Your task to perform on an android device: install app "HBO Max: Stream TV & Movies" Image 0: 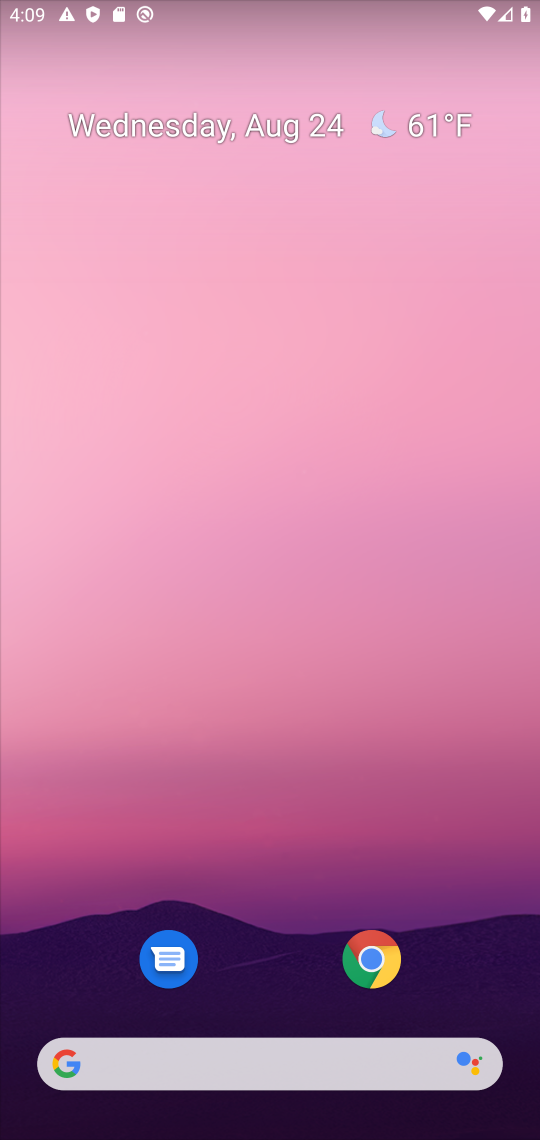
Step 0: drag from (301, 1027) to (329, 7)
Your task to perform on an android device: install app "HBO Max: Stream TV & Movies" Image 1: 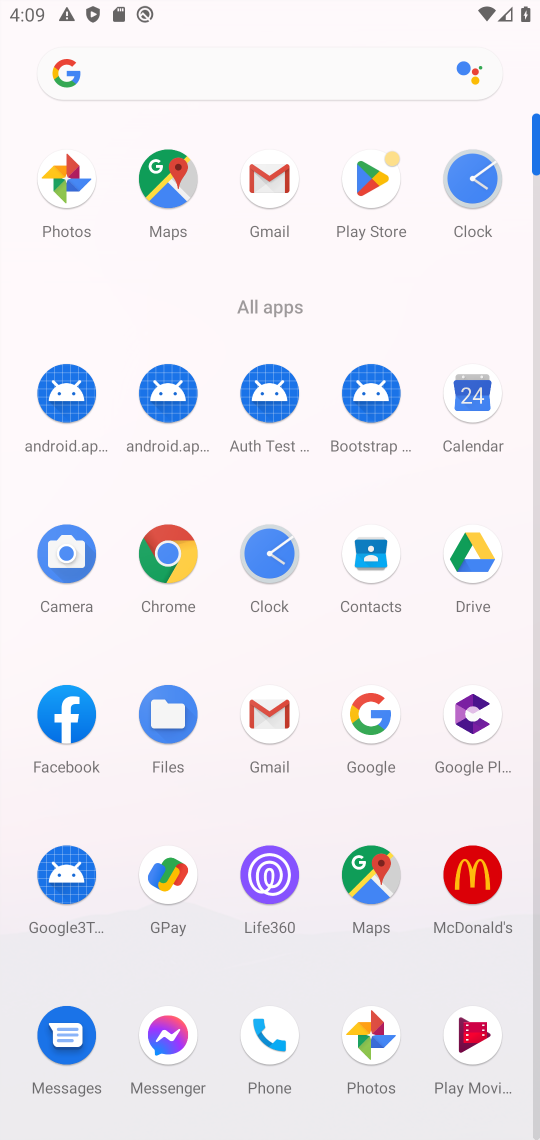
Step 1: click (365, 201)
Your task to perform on an android device: install app "HBO Max: Stream TV & Movies" Image 2: 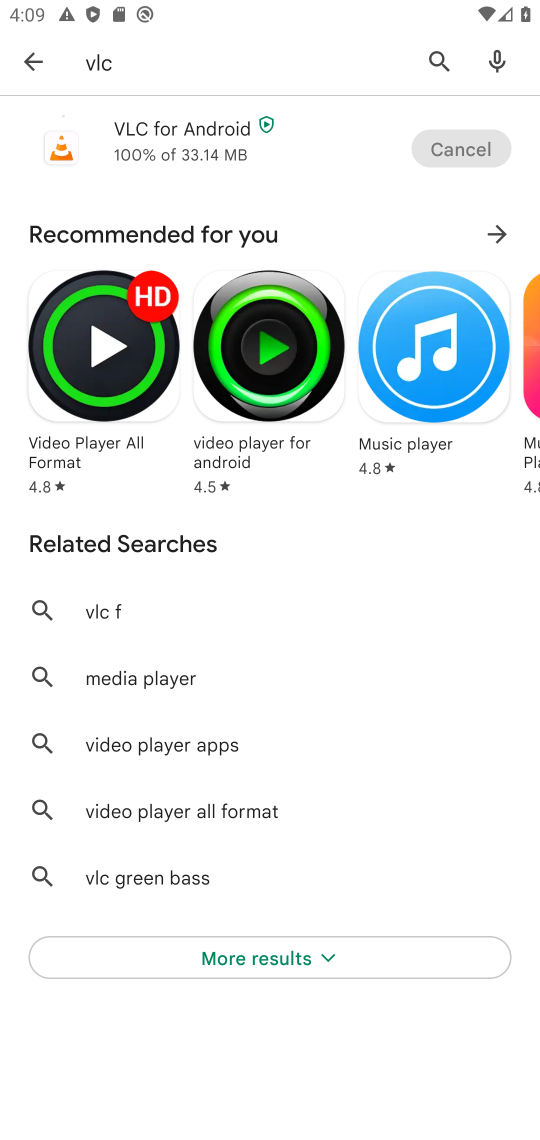
Step 2: click (442, 68)
Your task to perform on an android device: install app "HBO Max: Stream TV & Movies" Image 3: 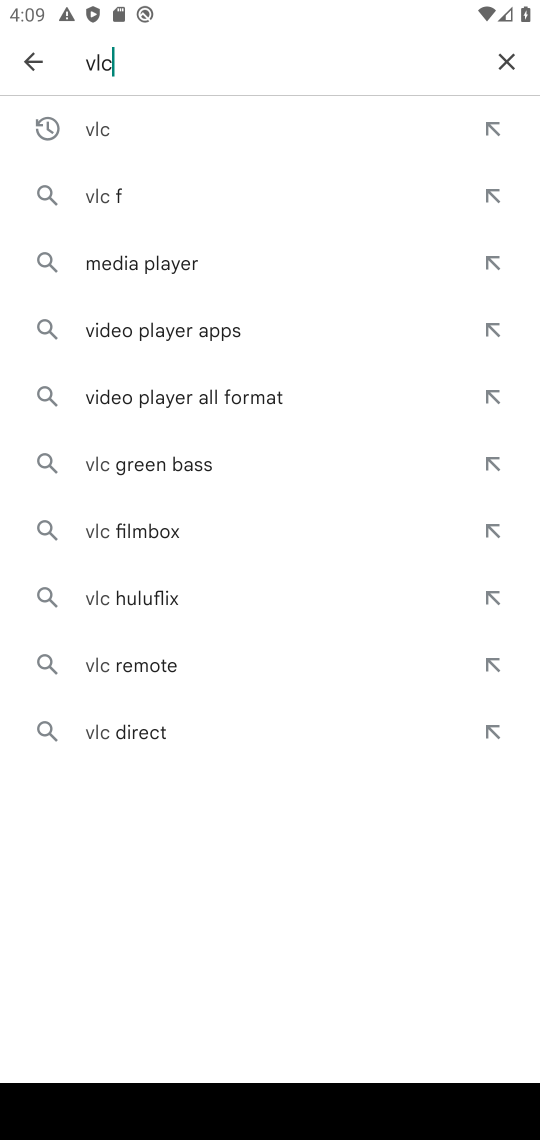
Step 3: click (501, 76)
Your task to perform on an android device: install app "HBO Max: Stream TV & Movies" Image 4: 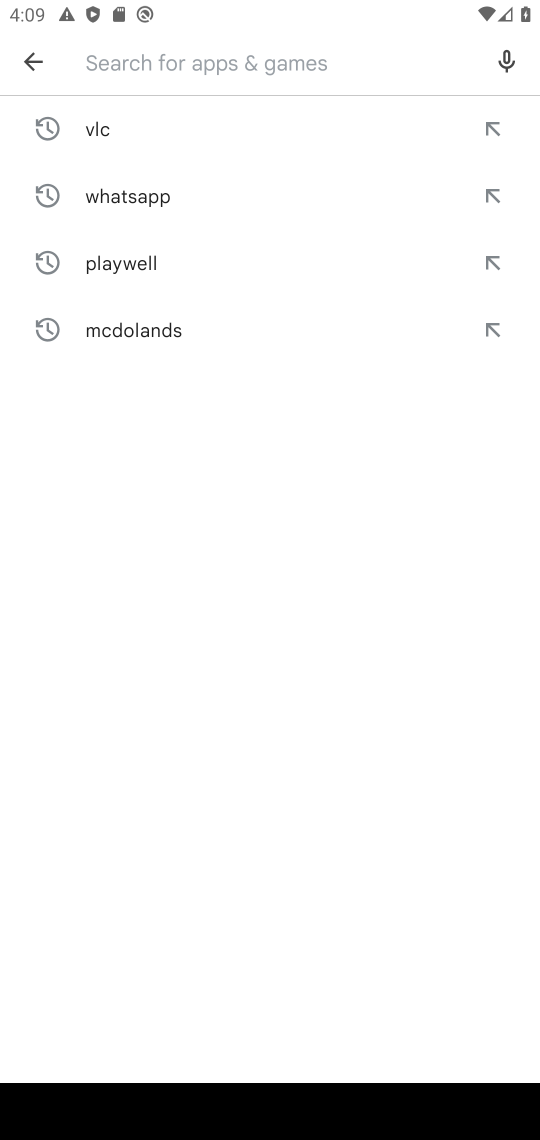
Step 4: type "hbo"
Your task to perform on an android device: install app "HBO Max: Stream TV & Movies" Image 5: 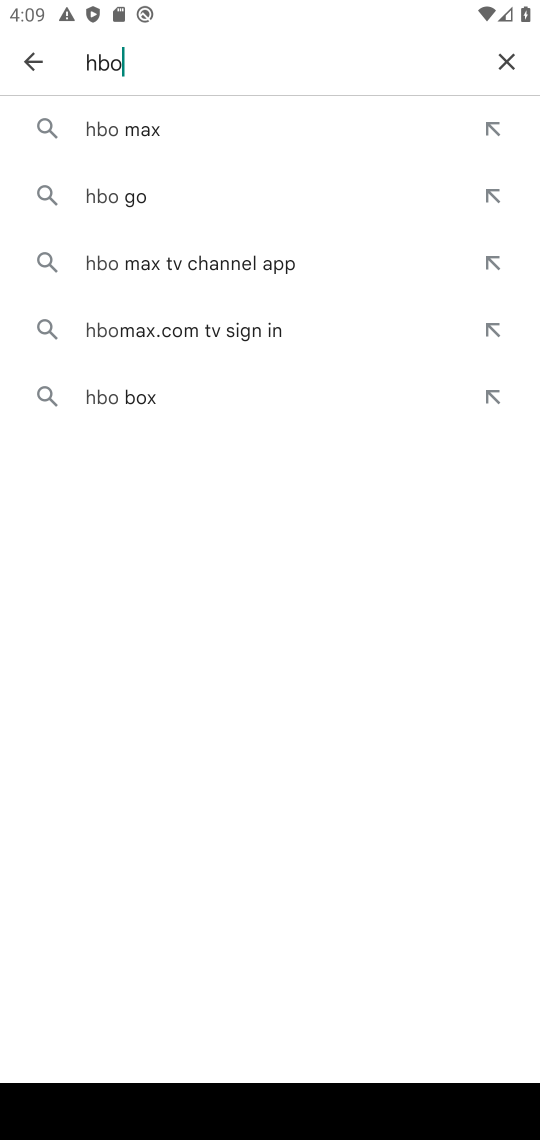
Step 5: click (267, 151)
Your task to perform on an android device: install app "HBO Max: Stream TV & Movies" Image 6: 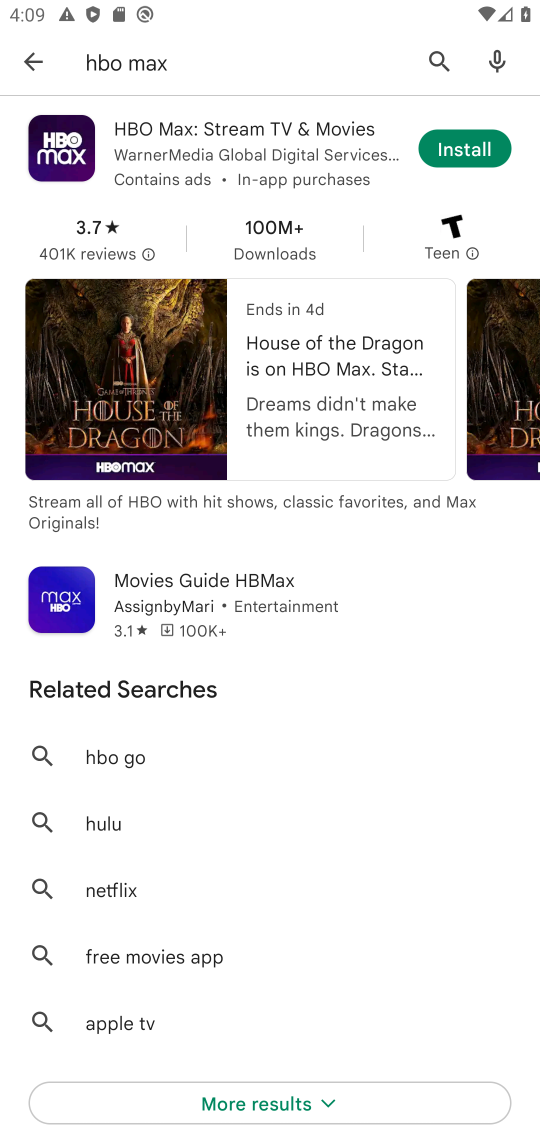
Step 6: click (444, 147)
Your task to perform on an android device: install app "HBO Max: Stream TV & Movies" Image 7: 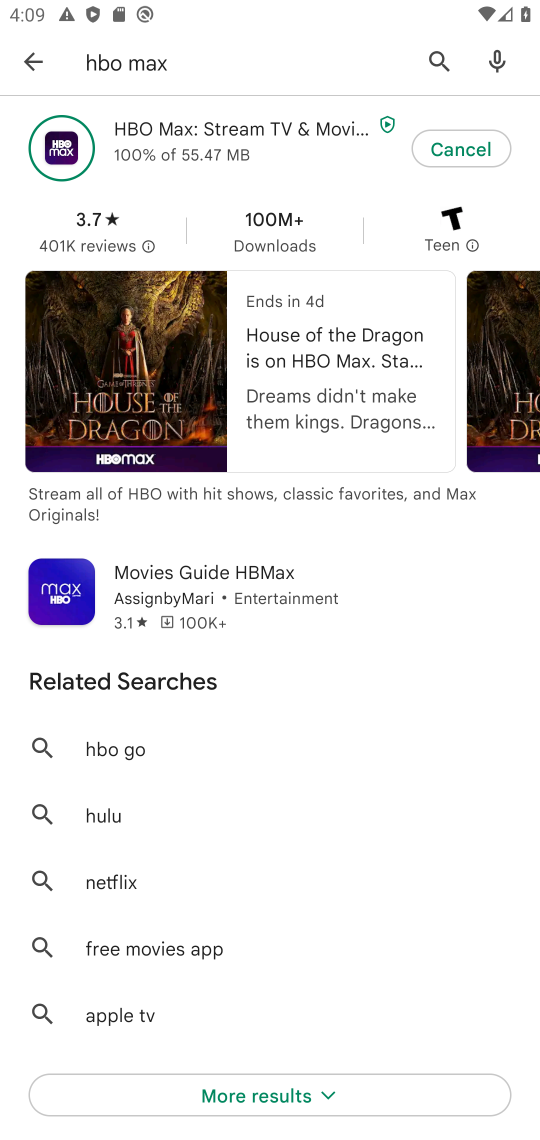
Step 7: task complete